Your task to perform on an android device: all mails in gmail Image 0: 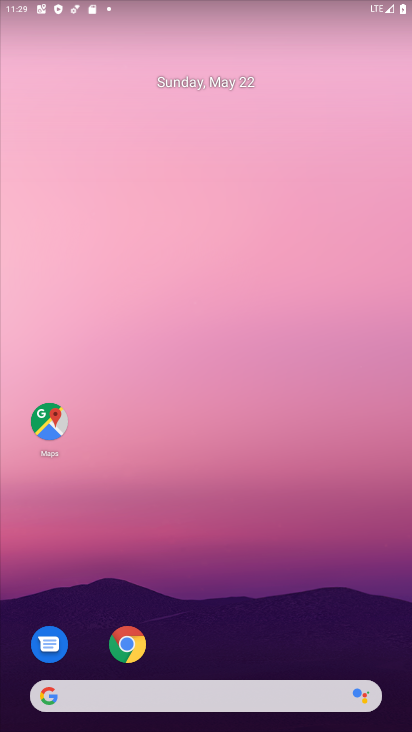
Step 0: drag from (302, 654) to (343, 97)
Your task to perform on an android device: all mails in gmail Image 1: 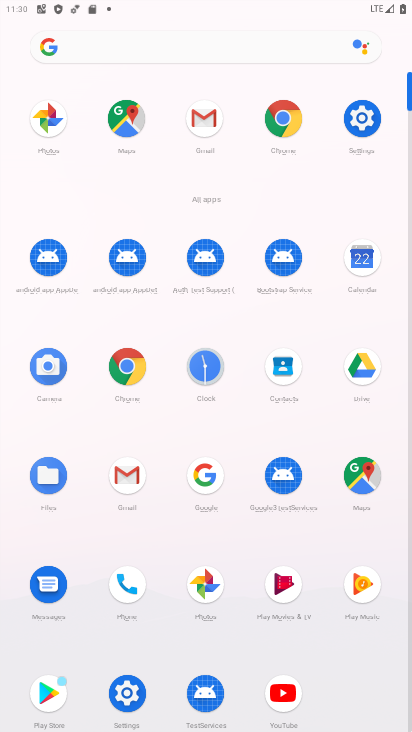
Step 1: click (121, 472)
Your task to perform on an android device: all mails in gmail Image 2: 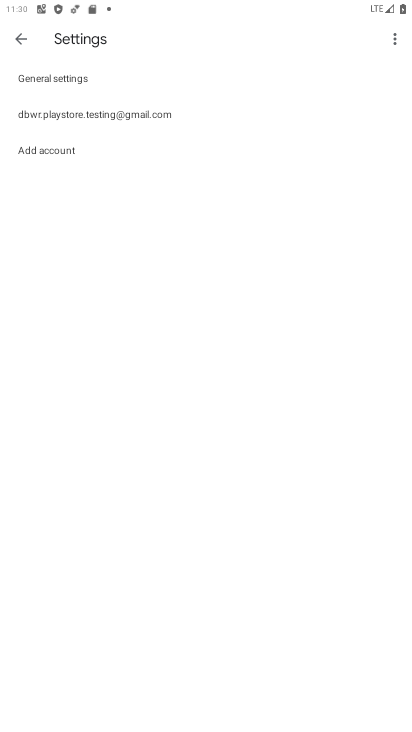
Step 2: click (25, 40)
Your task to perform on an android device: all mails in gmail Image 3: 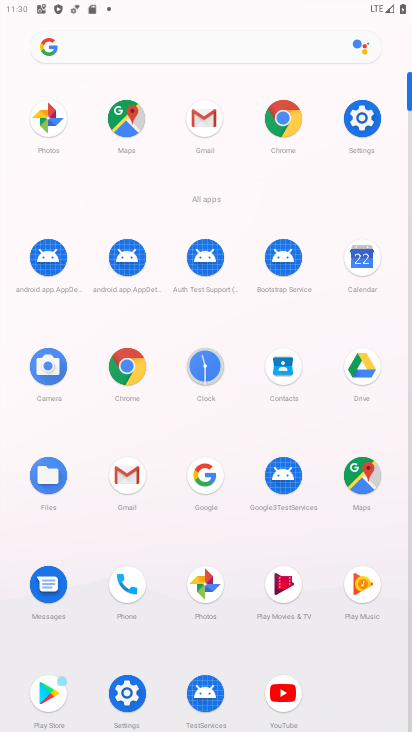
Step 3: click (210, 115)
Your task to perform on an android device: all mails in gmail Image 4: 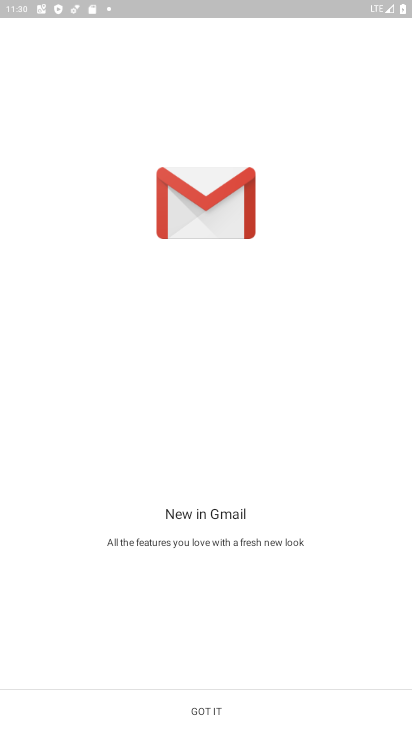
Step 4: click (255, 716)
Your task to perform on an android device: all mails in gmail Image 5: 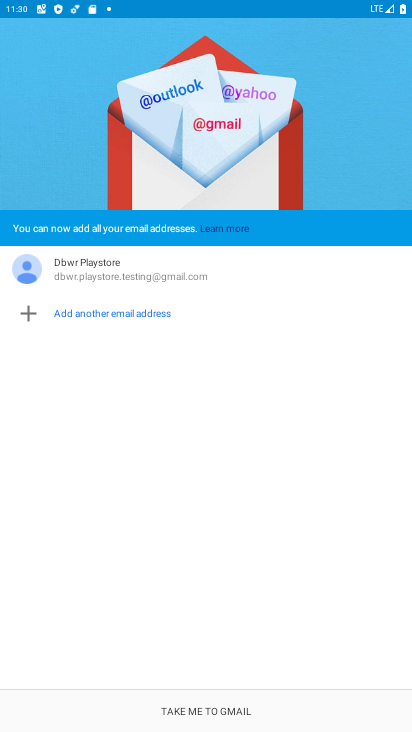
Step 5: click (254, 713)
Your task to perform on an android device: all mails in gmail Image 6: 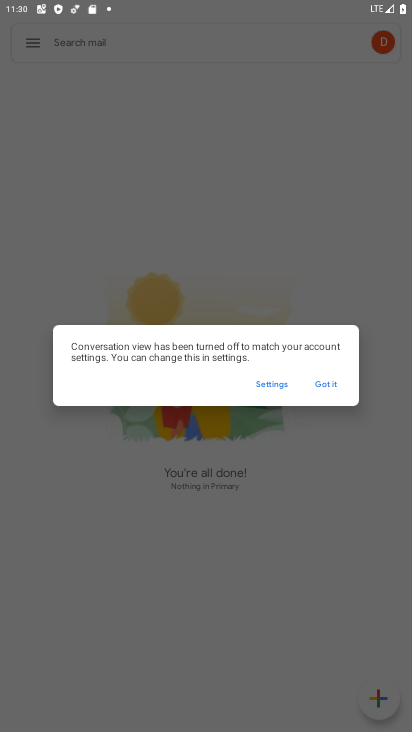
Step 6: click (326, 384)
Your task to perform on an android device: all mails in gmail Image 7: 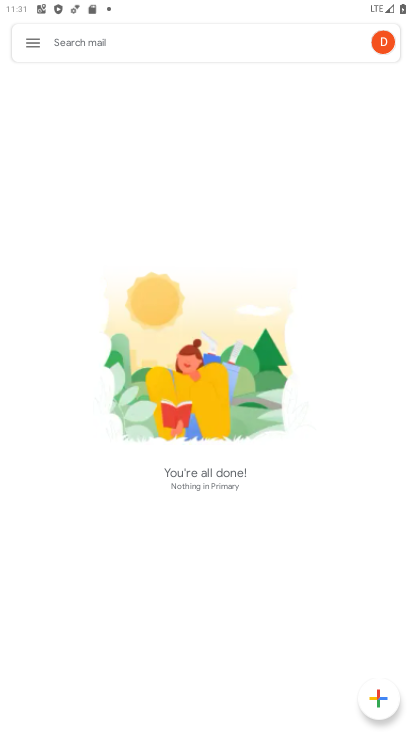
Step 7: click (34, 40)
Your task to perform on an android device: all mails in gmail Image 8: 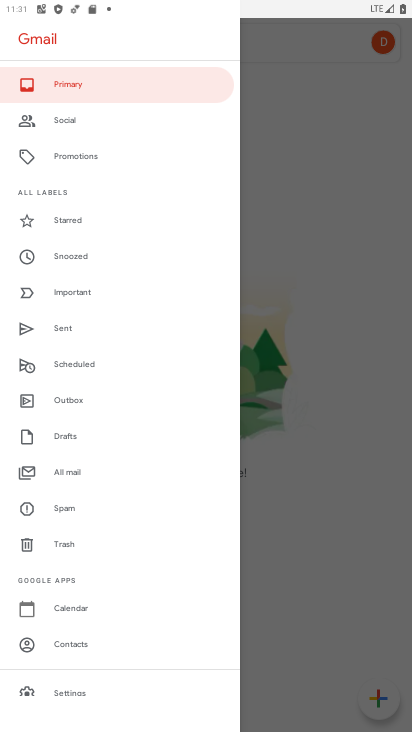
Step 8: click (78, 471)
Your task to perform on an android device: all mails in gmail Image 9: 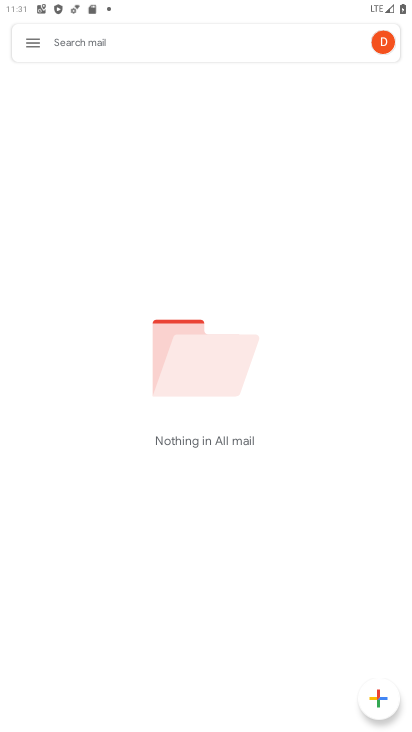
Step 9: task complete